Your task to perform on an android device: turn on showing notifications on the lock screen Image 0: 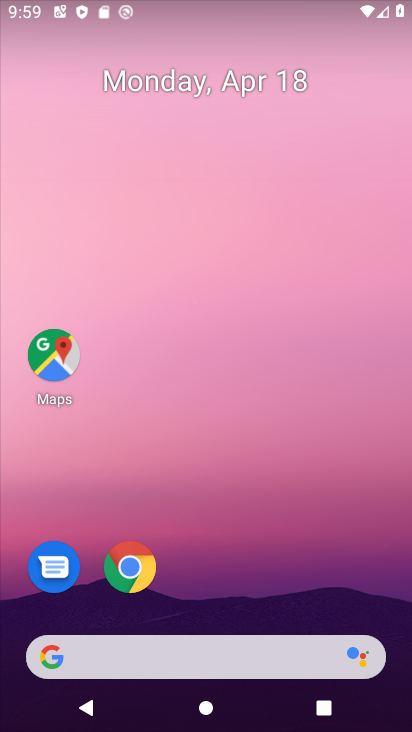
Step 0: drag from (344, 552) to (344, 170)
Your task to perform on an android device: turn on showing notifications on the lock screen Image 1: 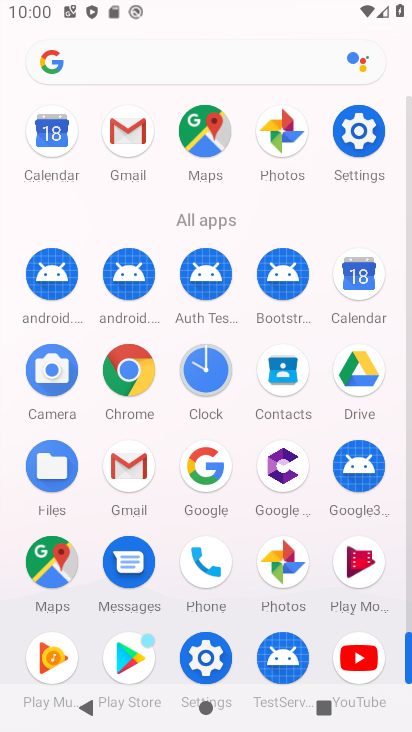
Step 1: click (362, 134)
Your task to perform on an android device: turn on showing notifications on the lock screen Image 2: 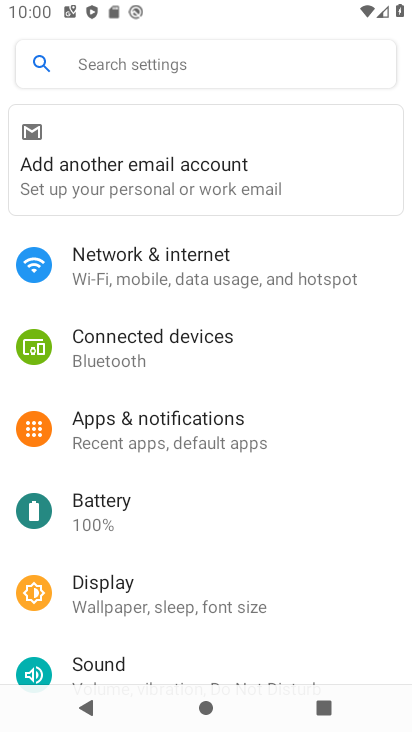
Step 2: click (183, 440)
Your task to perform on an android device: turn on showing notifications on the lock screen Image 3: 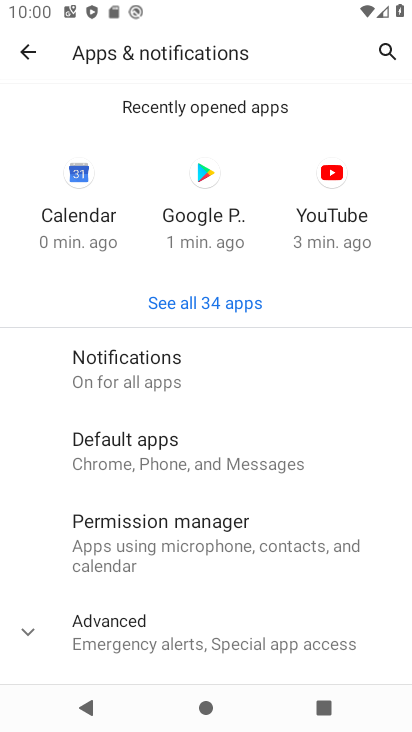
Step 3: click (147, 353)
Your task to perform on an android device: turn on showing notifications on the lock screen Image 4: 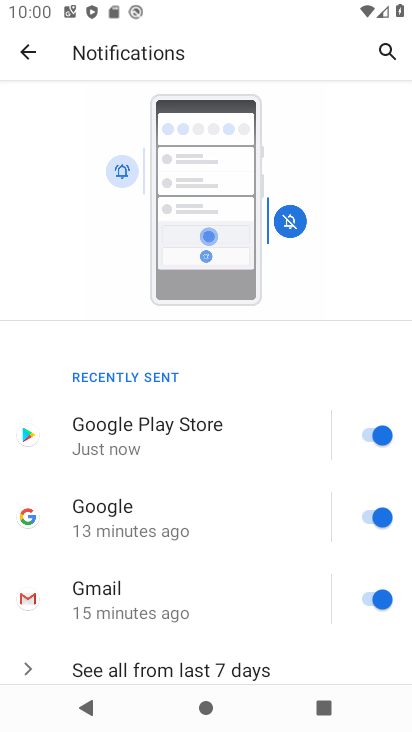
Step 4: drag from (314, 667) to (295, 227)
Your task to perform on an android device: turn on showing notifications on the lock screen Image 5: 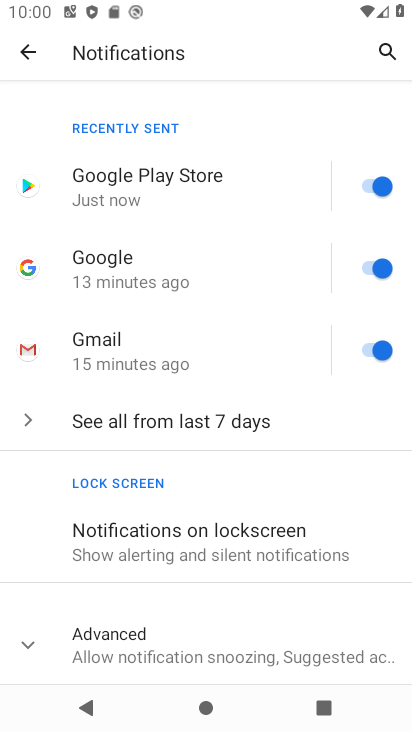
Step 5: click (184, 663)
Your task to perform on an android device: turn on showing notifications on the lock screen Image 6: 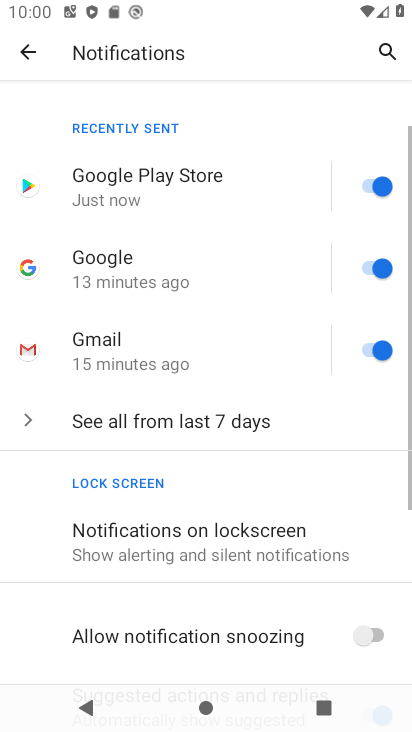
Step 6: click (210, 545)
Your task to perform on an android device: turn on showing notifications on the lock screen Image 7: 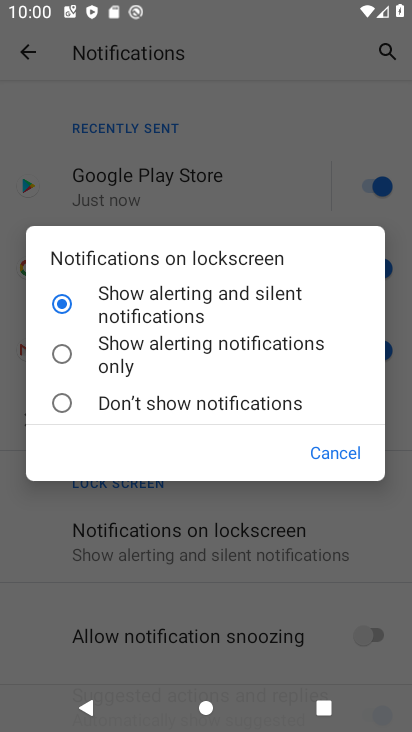
Step 7: task complete